Your task to perform on an android device: Is it going to rain tomorrow? Image 0: 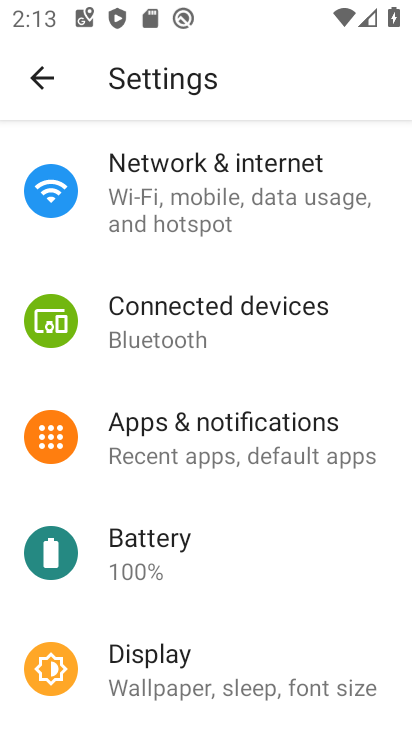
Step 0: press home button
Your task to perform on an android device: Is it going to rain tomorrow? Image 1: 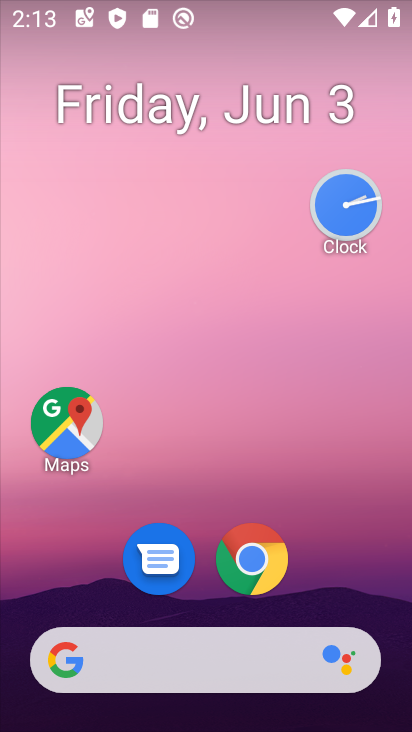
Step 1: drag from (44, 322) to (293, 278)
Your task to perform on an android device: Is it going to rain tomorrow? Image 2: 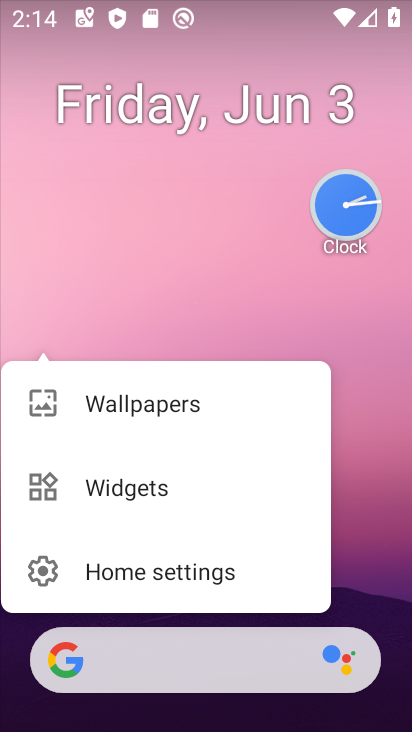
Step 2: drag from (35, 298) to (168, 256)
Your task to perform on an android device: Is it going to rain tomorrow? Image 3: 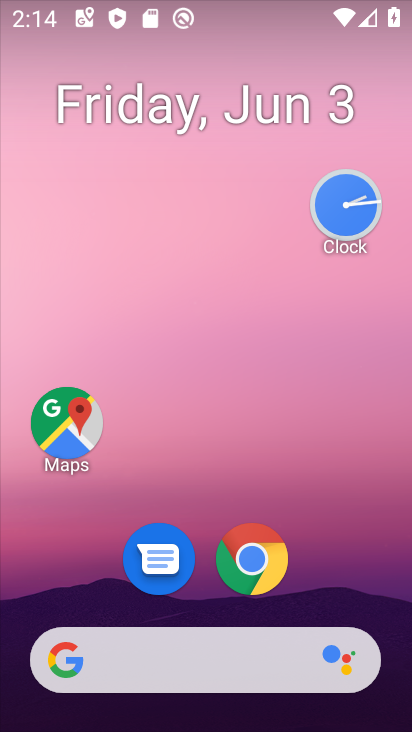
Step 3: drag from (11, 259) to (393, 242)
Your task to perform on an android device: Is it going to rain tomorrow? Image 4: 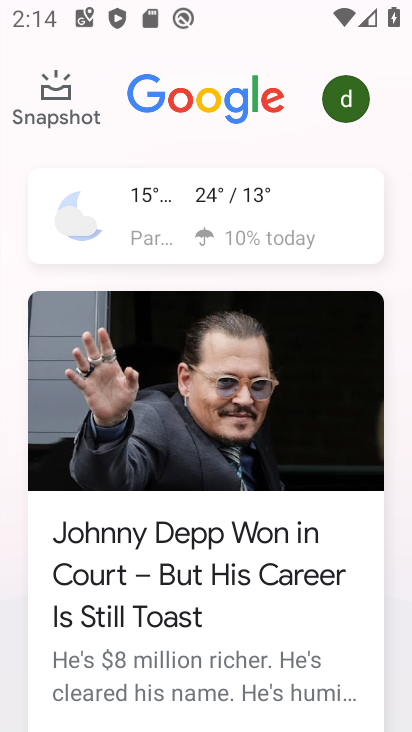
Step 4: click (177, 230)
Your task to perform on an android device: Is it going to rain tomorrow? Image 5: 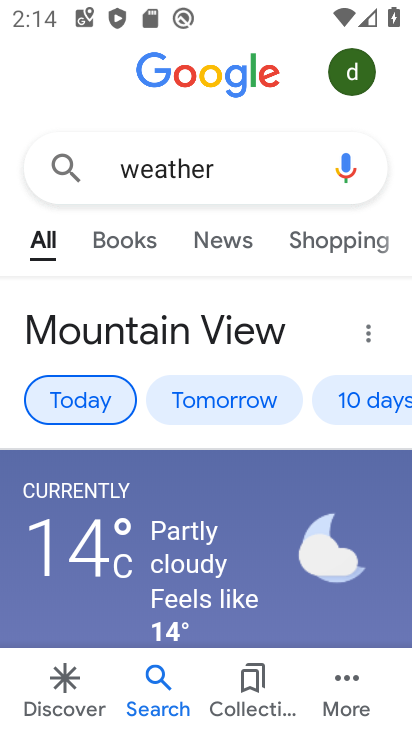
Step 5: click (245, 387)
Your task to perform on an android device: Is it going to rain tomorrow? Image 6: 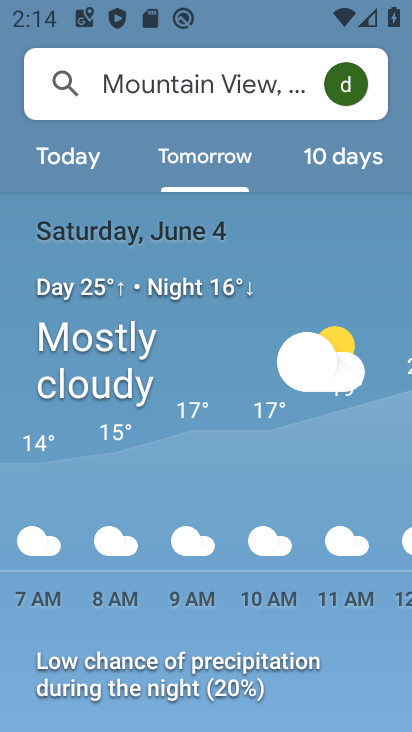
Step 6: task complete